Your task to perform on an android device: open a bookmark in the chrome app Image 0: 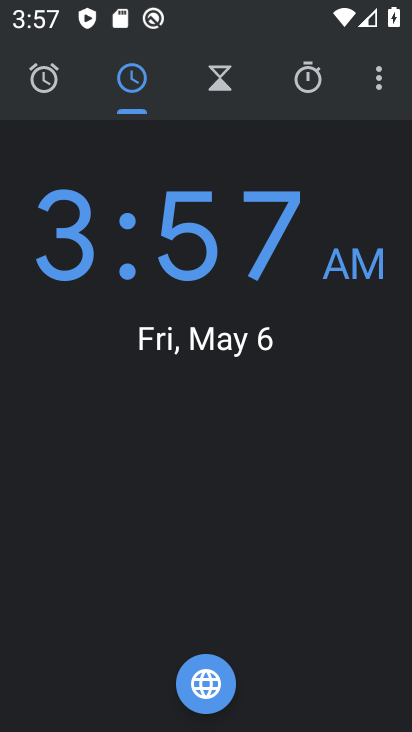
Step 0: press home button
Your task to perform on an android device: open a bookmark in the chrome app Image 1: 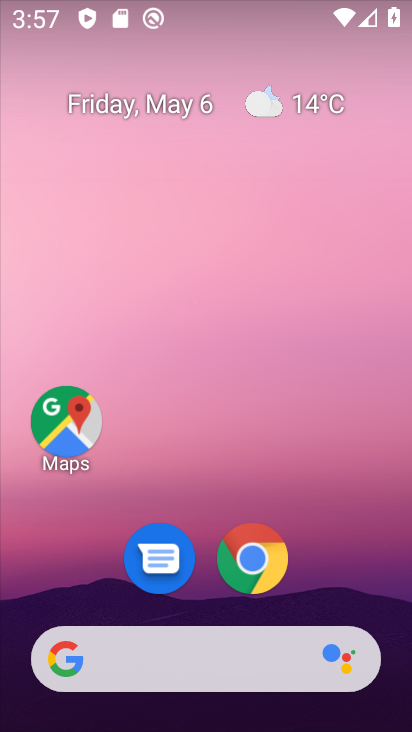
Step 1: drag from (312, 619) to (266, 13)
Your task to perform on an android device: open a bookmark in the chrome app Image 2: 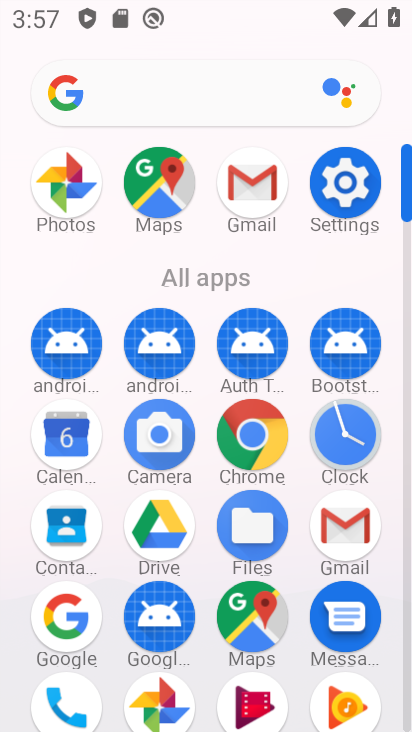
Step 2: click (263, 444)
Your task to perform on an android device: open a bookmark in the chrome app Image 3: 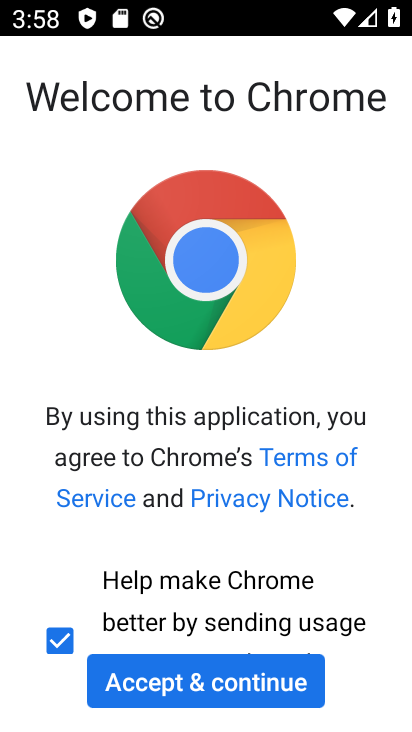
Step 3: click (207, 680)
Your task to perform on an android device: open a bookmark in the chrome app Image 4: 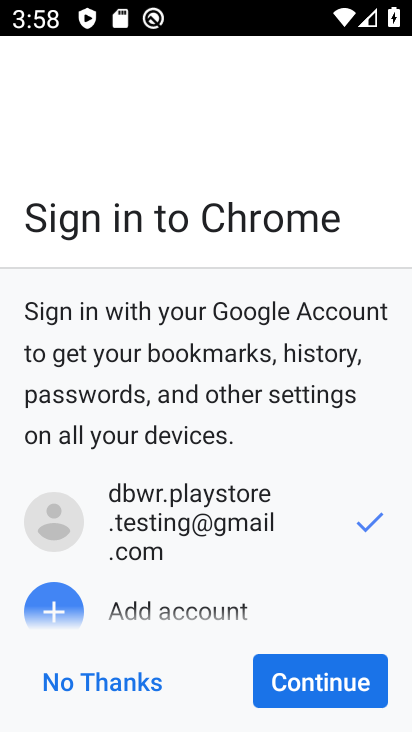
Step 4: click (139, 698)
Your task to perform on an android device: open a bookmark in the chrome app Image 5: 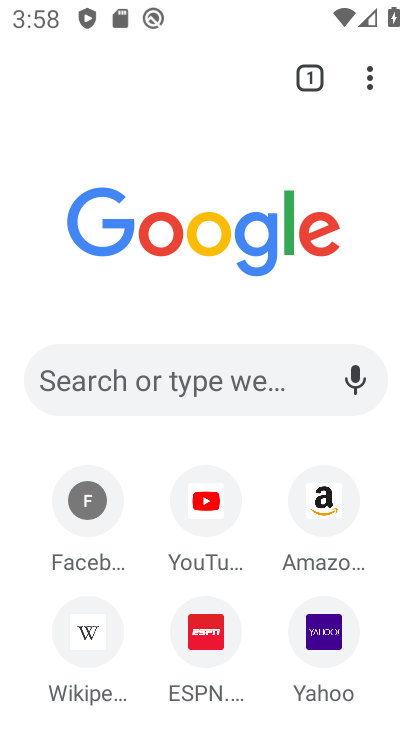
Step 5: task complete